Your task to perform on an android device: toggle priority inbox in the gmail app Image 0: 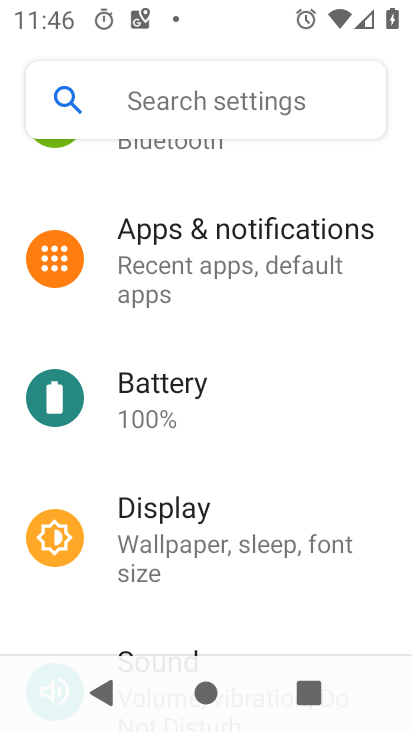
Step 0: press home button
Your task to perform on an android device: toggle priority inbox in the gmail app Image 1: 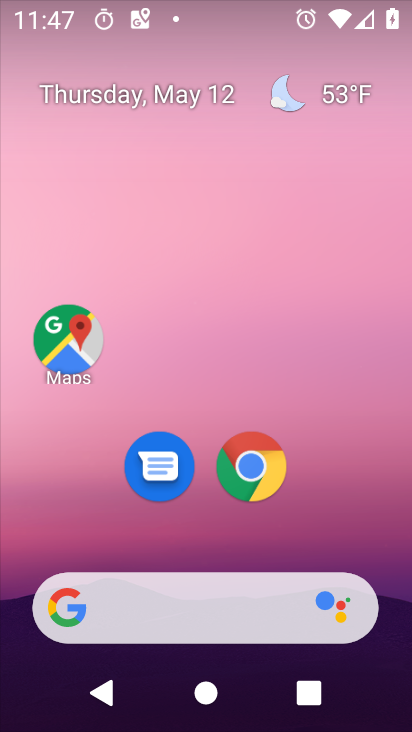
Step 1: drag from (346, 508) to (319, 224)
Your task to perform on an android device: toggle priority inbox in the gmail app Image 2: 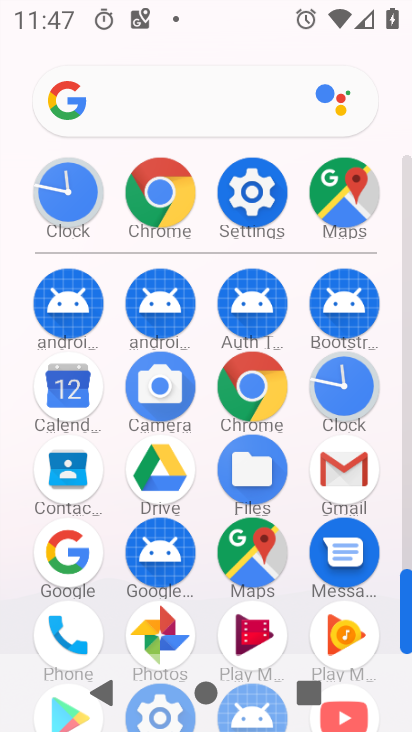
Step 2: click (322, 496)
Your task to perform on an android device: toggle priority inbox in the gmail app Image 3: 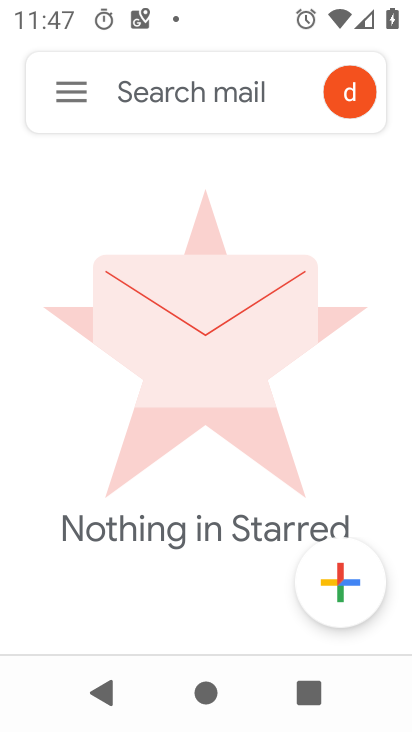
Step 3: click (82, 114)
Your task to perform on an android device: toggle priority inbox in the gmail app Image 4: 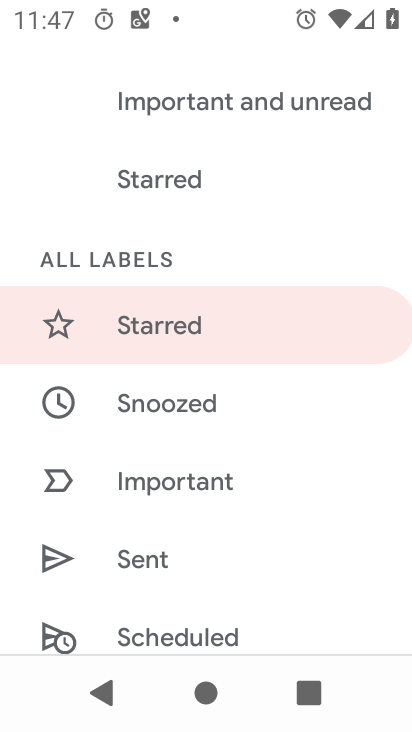
Step 4: drag from (184, 601) to (198, 201)
Your task to perform on an android device: toggle priority inbox in the gmail app Image 5: 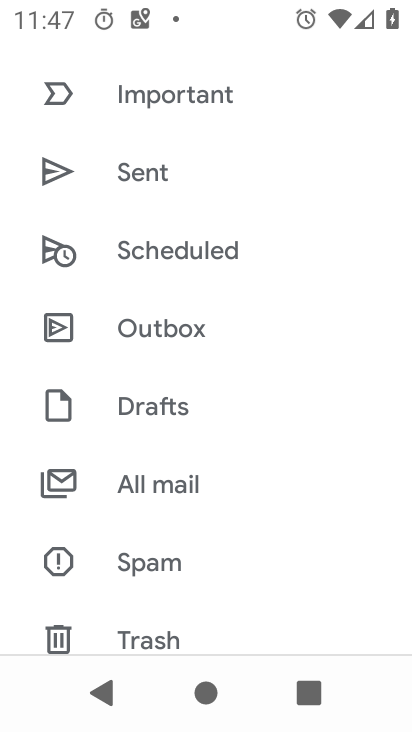
Step 5: drag from (197, 609) to (245, 176)
Your task to perform on an android device: toggle priority inbox in the gmail app Image 6: 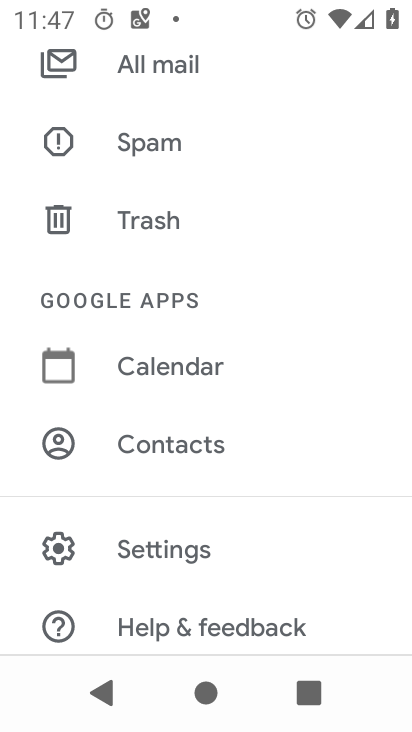
Step 6: click (191, 567)
Your task to perform on an android device: toggle priority inbox in the gmail app Image 7: 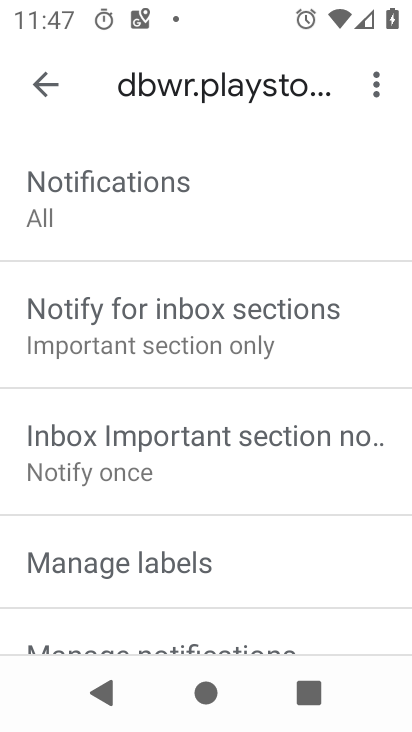
Step 7: drag from (204, 186) to (198, 554)
Your task to perform on an android device: toggle priority inbox in the gmail app Image 8: 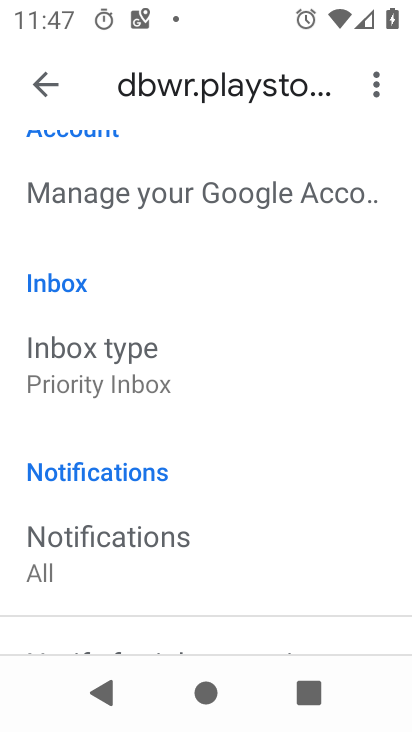
Step 8: click (121, 360)
Your task to perform on an android device: toggle priority inbox in the gmail app Image 9: 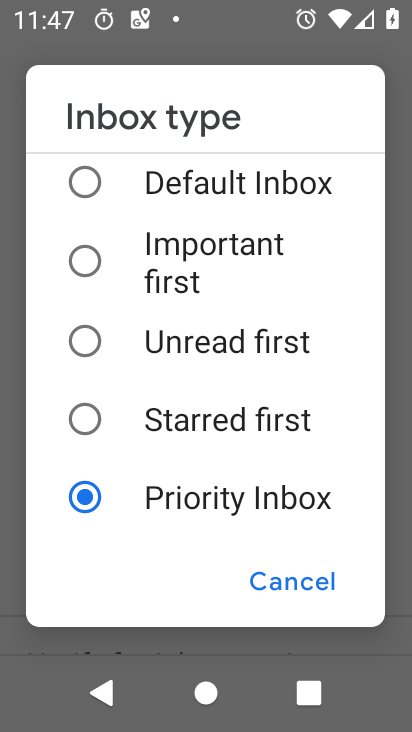
Step 9: click (86, 177)
Your task to perform on an android device: toggle priority inbox in the gmail app Image 10: 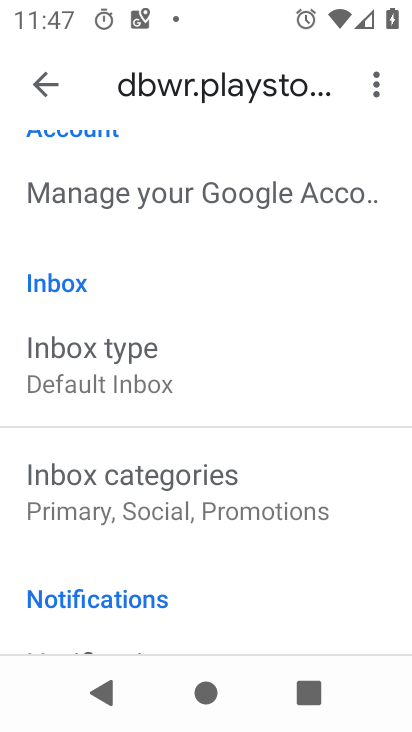
Step 10: task complete